Your task to perform on an android device: turn on improve location accuracy Image 0: 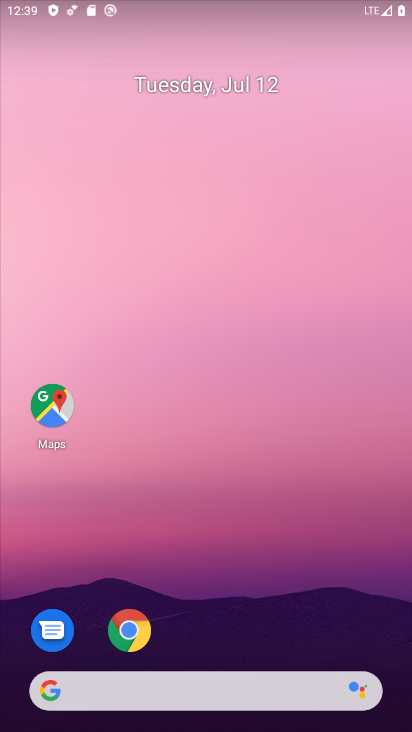
Step 0: drag from (280, 587) to (258, 284)
Your task to perform on an android device: turn on improve location accuracy Image 1: 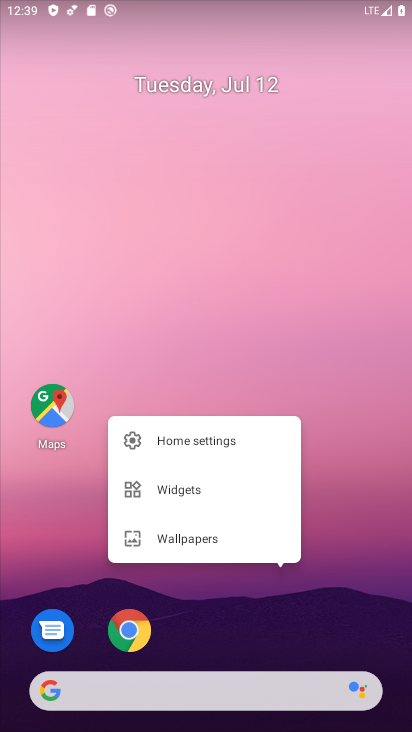
Step 1: click (307, 638)
Your task to perform on an android device: turn on improve location accuracy Image 2: 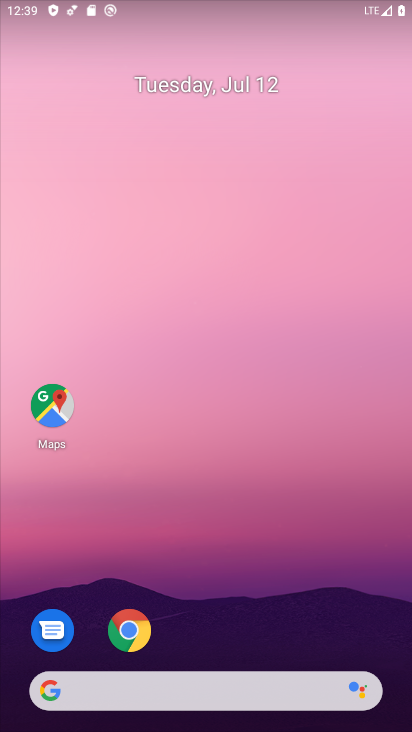
Step 2: drag from (307, 638) to (220, 161)
Your task to perform on an android device: turn on improve location accuracy Image 3: 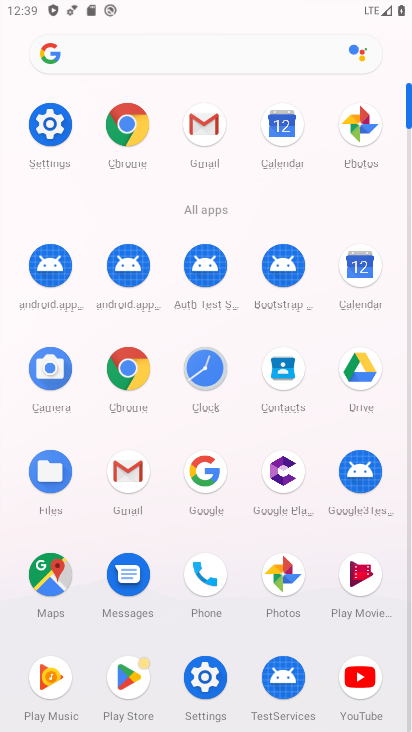
Step 3: click (208, 670)
Your task to perform on an android device: turn on improve location accuracy Image 4: 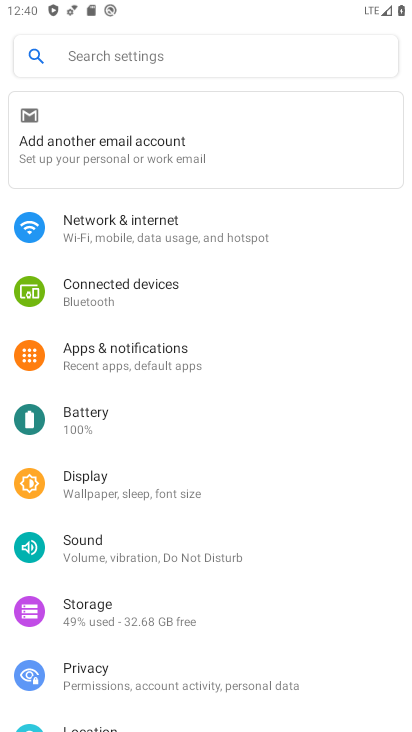
Step 4: click (96, 729)
Your task to perform on an android device: turn on improve location accuracy Image 5: 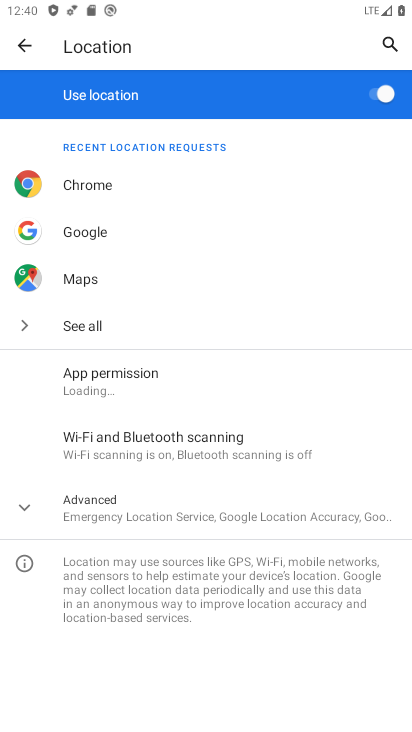
Step 5: click (143, 515)
Your task to perform on an android device: turn on improve location accuracy Image 6: 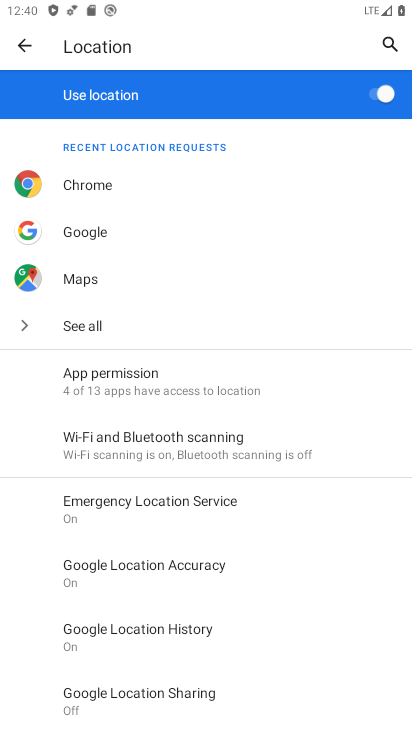
Step 6: click (183, 573)
Your task to perform on an android device: turn on improve location accuracy Image 7: 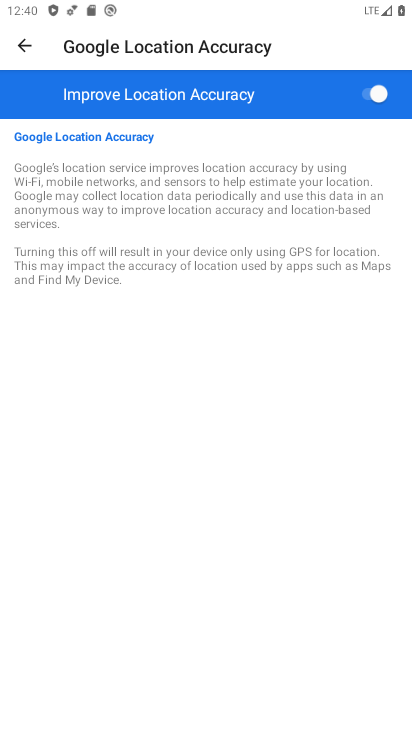
Step 7: task complete